Your task to perform on an android device: add a contact in the contacts app Image 0: 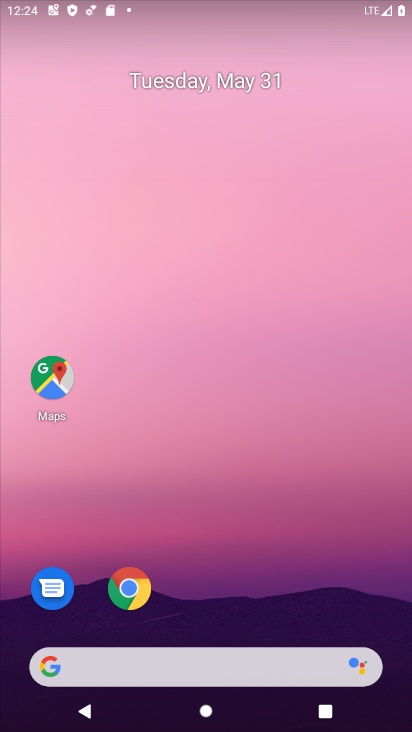
Step 0: press home button
Your task to perform on an android device: add a contact in the contacts app Image 1: 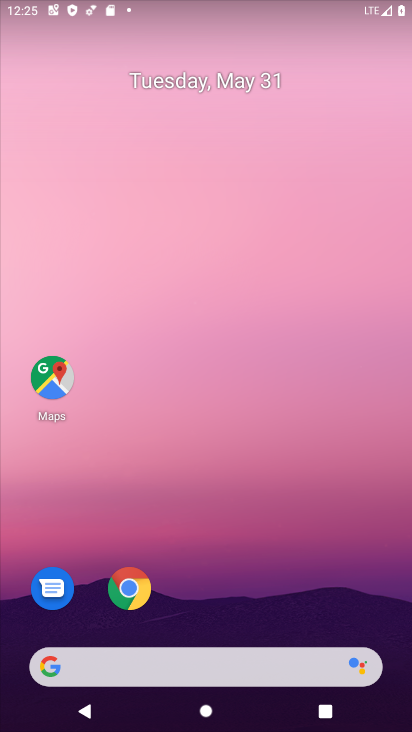
Step 1: drag from (214, 615) to (216, 203)
Your task to perform on an android device: add a contact in the contacts app Image 2: 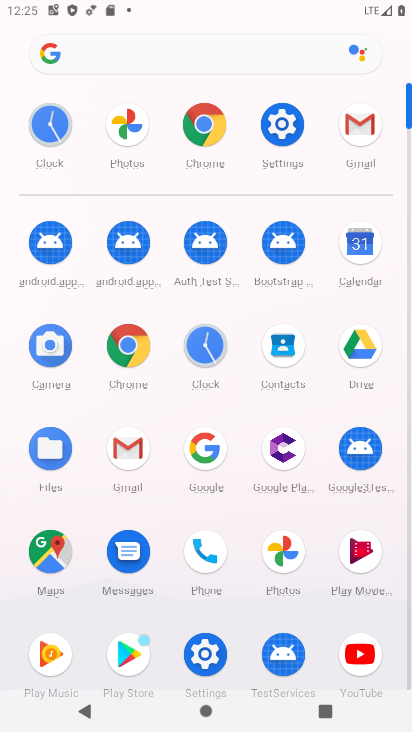
Step 2: click (281, 341)
Your task to perform on an android device: add a contact in the contacts app Image 3: 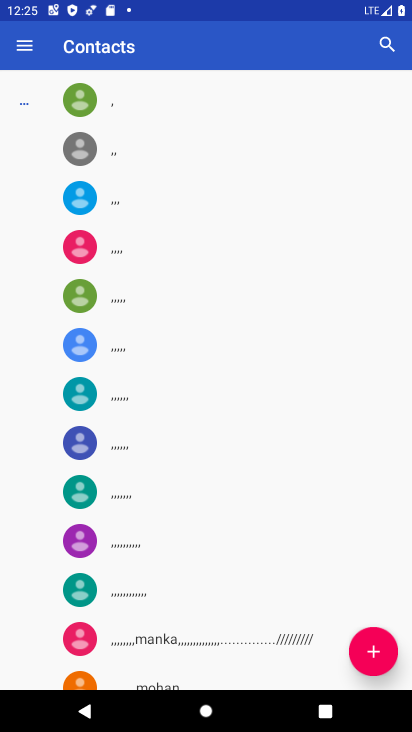
Step 3: click (370, 650)
Your task to perform on an android device: add a contact in the contacts app Image 4: 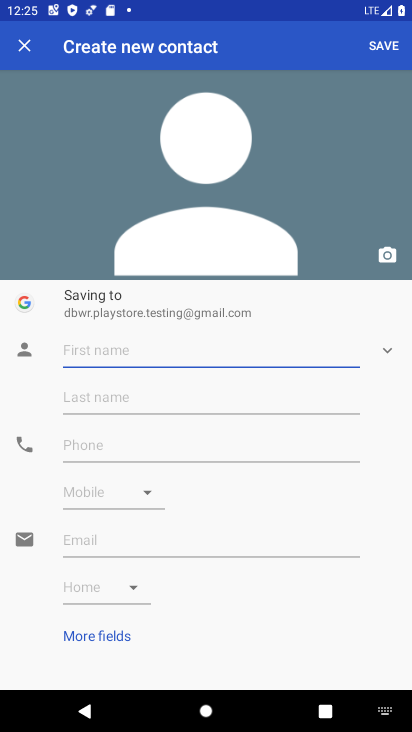
Step 4: type "bchfdh"
Your task to perform on an android device: add a contact in the contacts app Image 5: 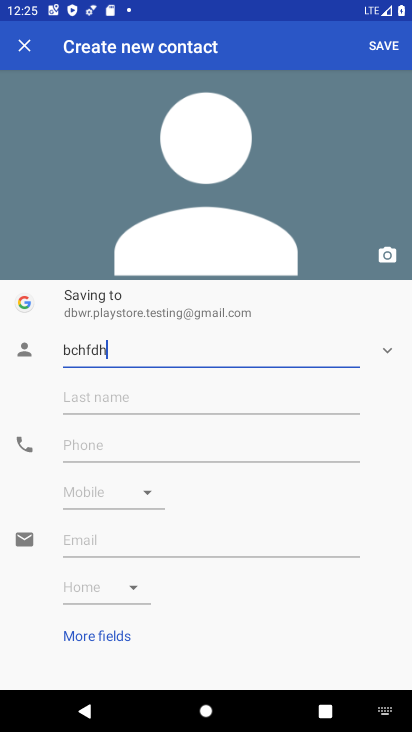
Step 5: click (380, 41)
Your task to perform on an android device: add a contact in the contacts app Image 6: 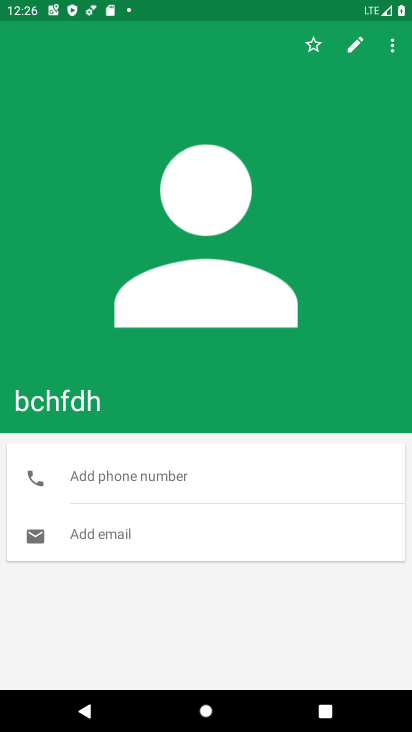
Step 6: task complete